Your task to perform on an android device: Search for sushi restaurants on Maps Image 0: 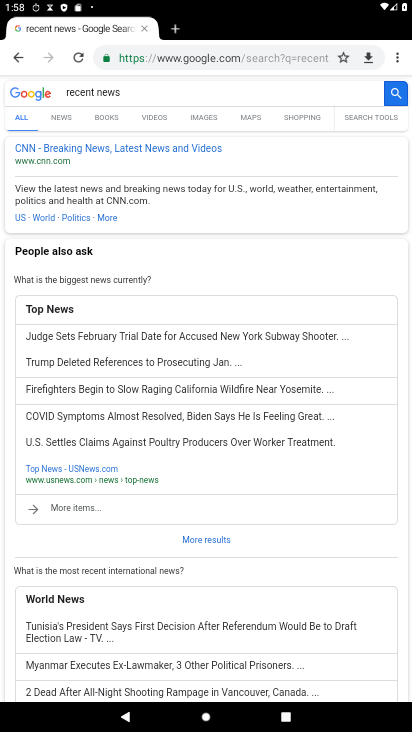
Step 0: press home button
Your task to perform on an android device: Search for sushi restaurants on Maps Image 1: 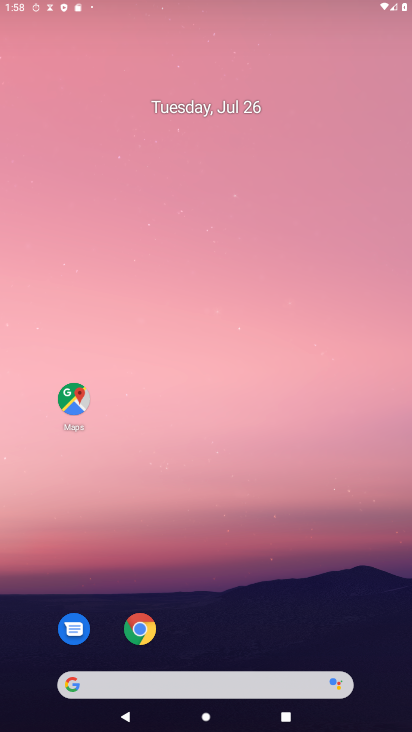
Step 1: drag from (338, 697) to (410, 243)
Your task to perform on an android device: Search for sushi restaurants on Maps Image 2: 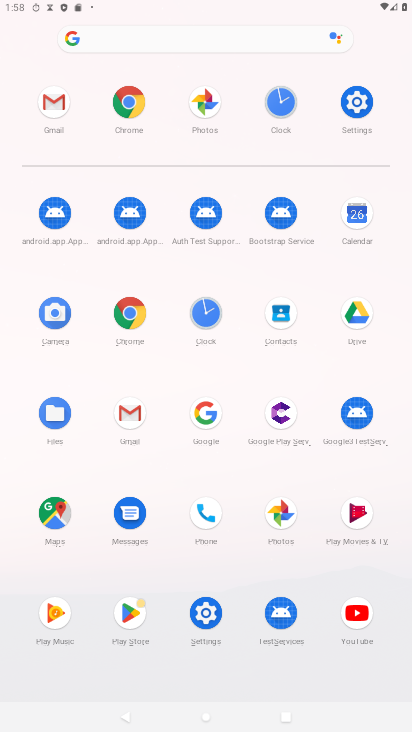
Step 2: click (67, 523)
Your task to perform on an android device: Search for sushi restaurants on Maps Image 3: 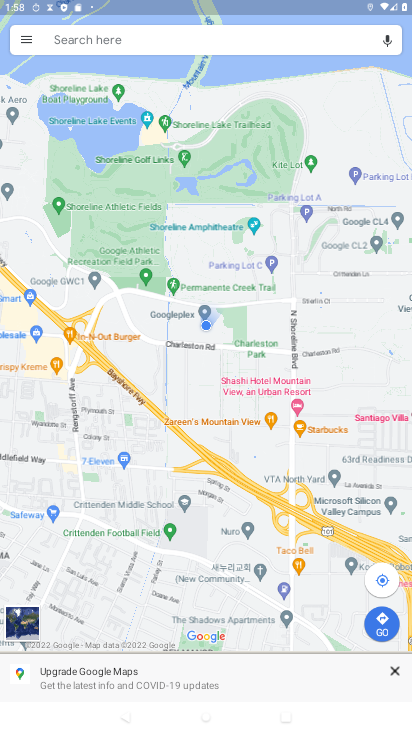
Step 3: click (271, 33)
Your task to perform on an android device: Search for sushi restaurants on Maps Image 4: 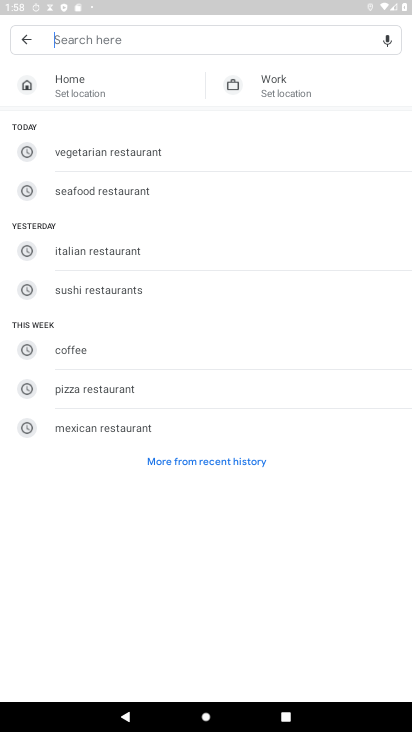
Step 4: click (101, 294)
Your task to perform on an android device: Search for sushi restaurants on Maps Image 5: 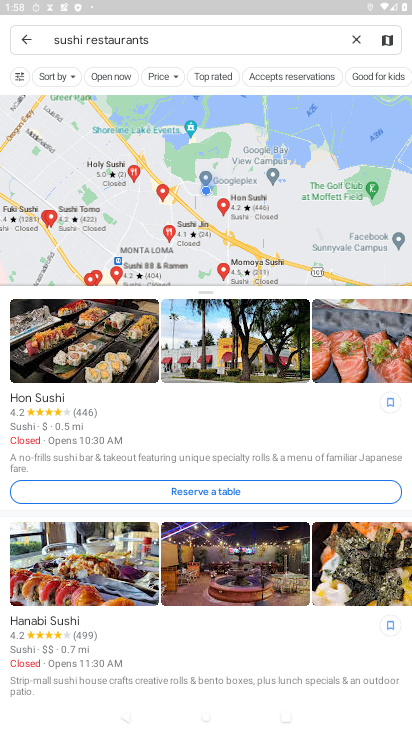
Step 5: task complete